Your task to perform on an android device: add a label to a message in the gmail app Image 0: 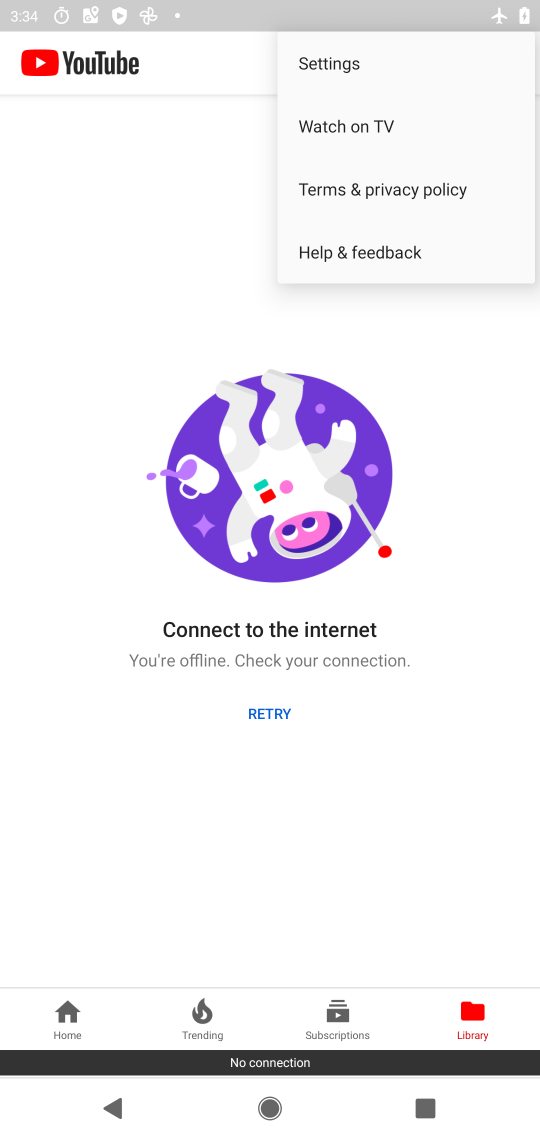
Step 0: press home button
Your task to perform on an android device: add a label to a message in the gmail app Image 1: 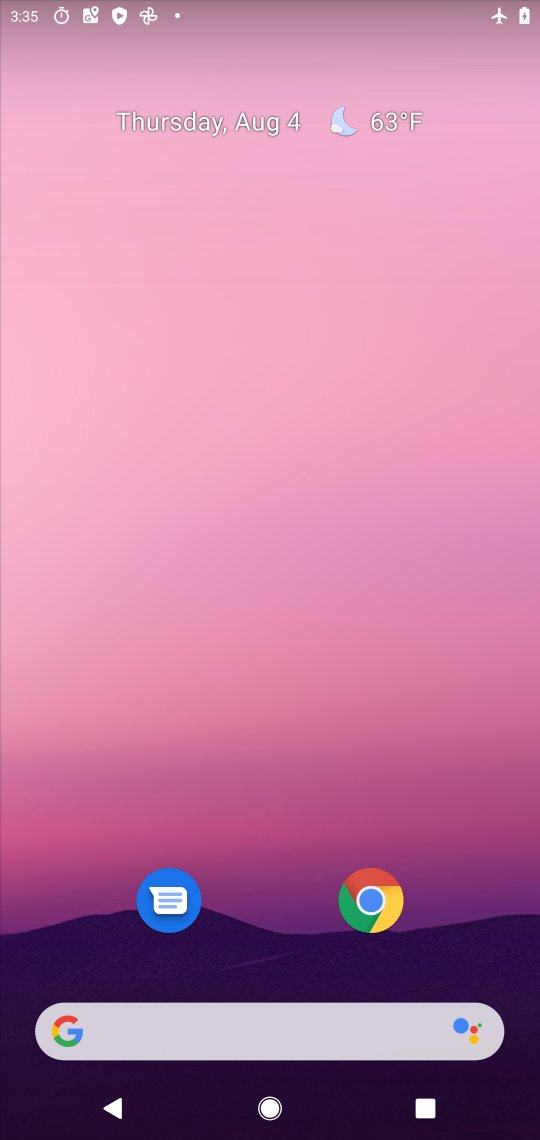
Step 1: drag from (512, 956) to (289, 95)
Your task to perform on an android device: add a label to a message in the gmail app Image 2: 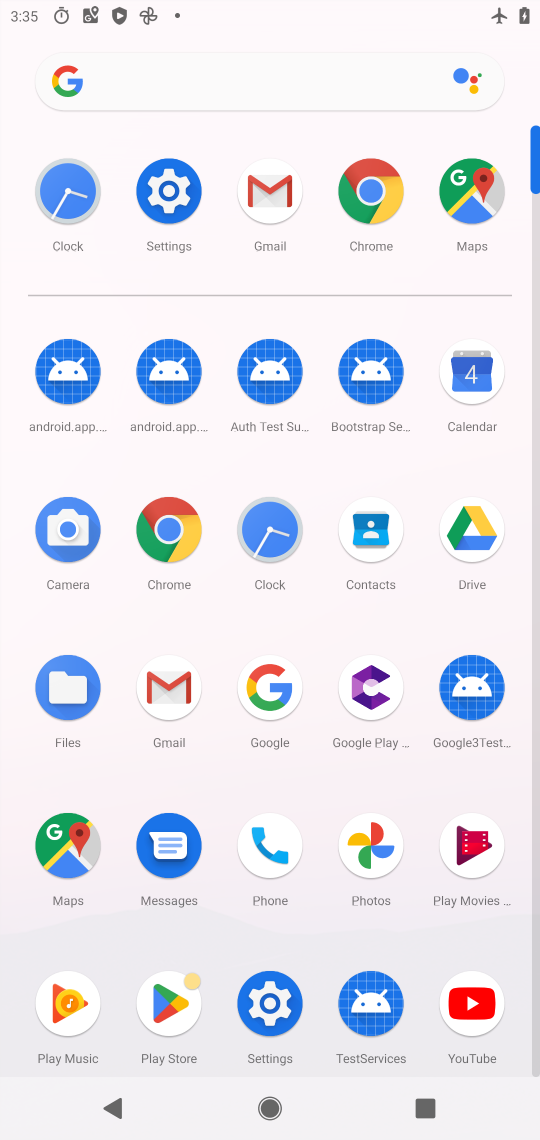
Step 2: click (281, 198)
Your task to perform on an android device: add a label to a message in the gmail app Image 3: 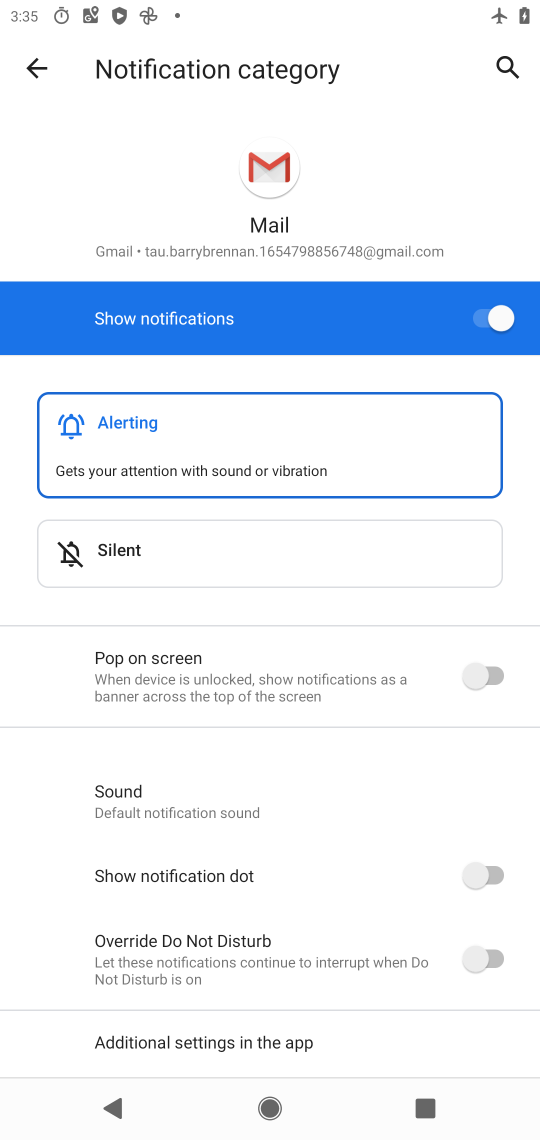
Step 3: click (31, 66)
Your task to perform on an android device: add a label to a message in the gmail app Image 4: 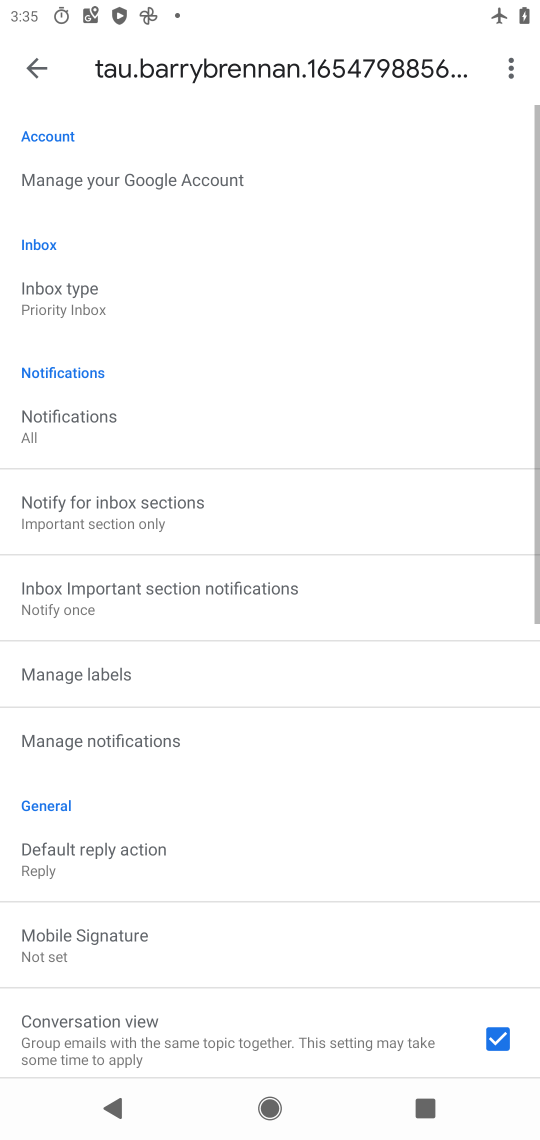
Step 4: click (31, 66)
Your task to perform on an android device: add a label to a message in the gmail app Image 5: 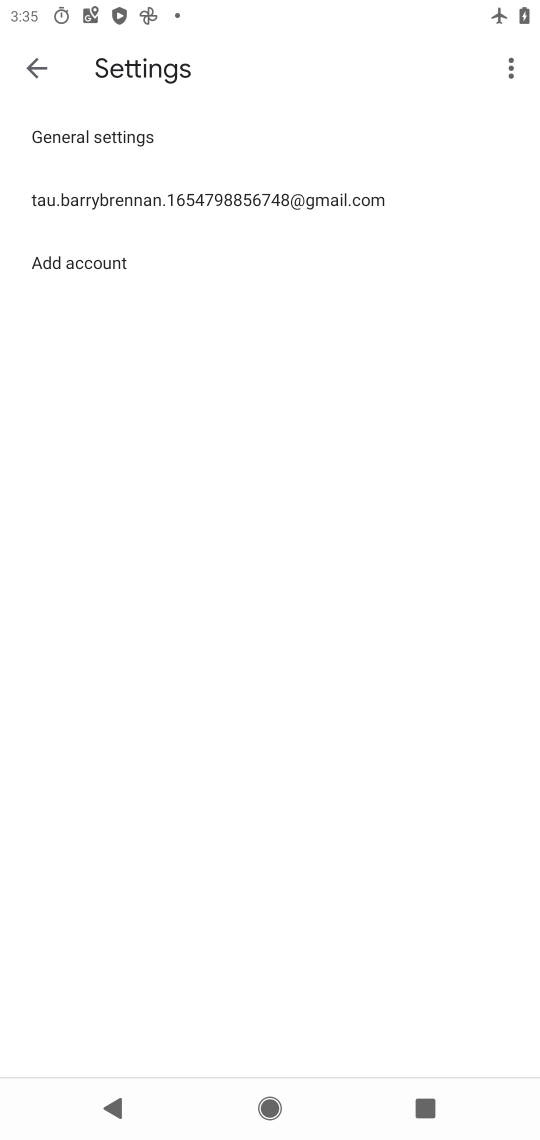
Step 5: click (31, 66)
Your task to perform on an android device: add a label to a message in the gmail app Image 6: 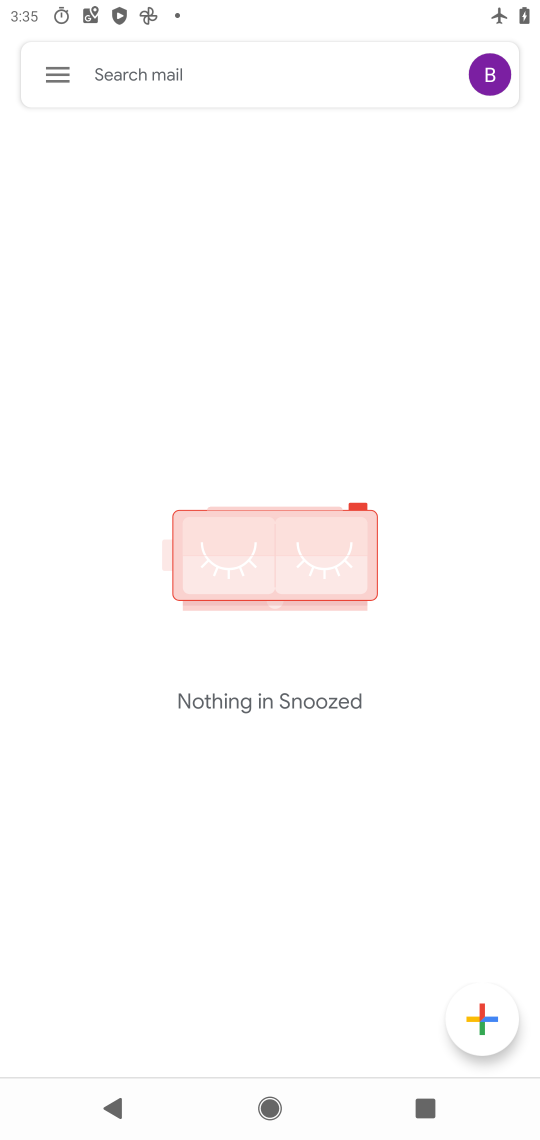
Step 6: click (53, 68)
Your task to perform on an android device: add a label to a message in the gmail app Image 7: 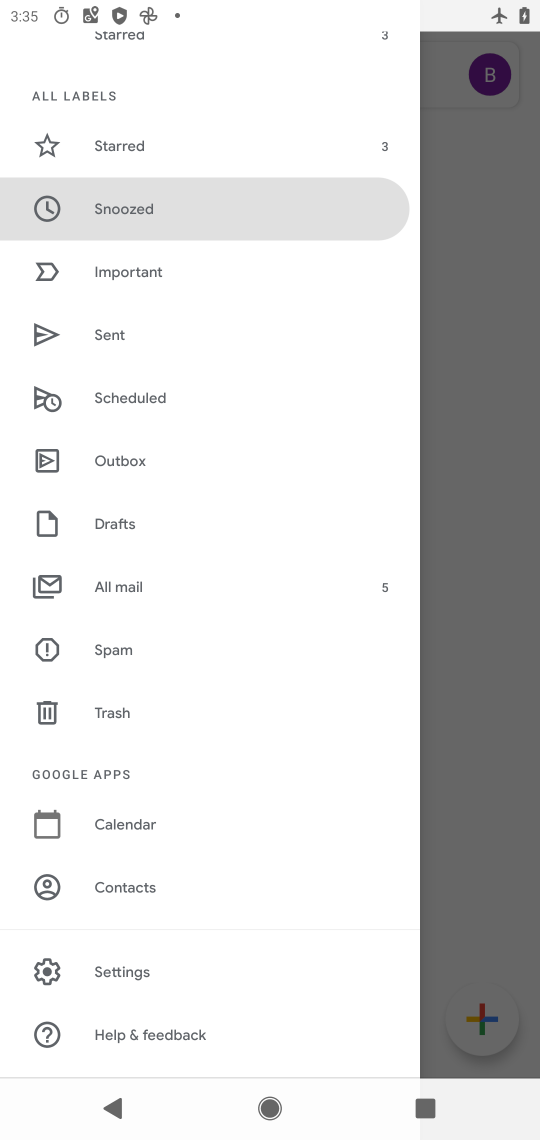
Step 7: click (133, 580)
Your task to perform on an android device: add a label to a message in the gmail app Image 8: 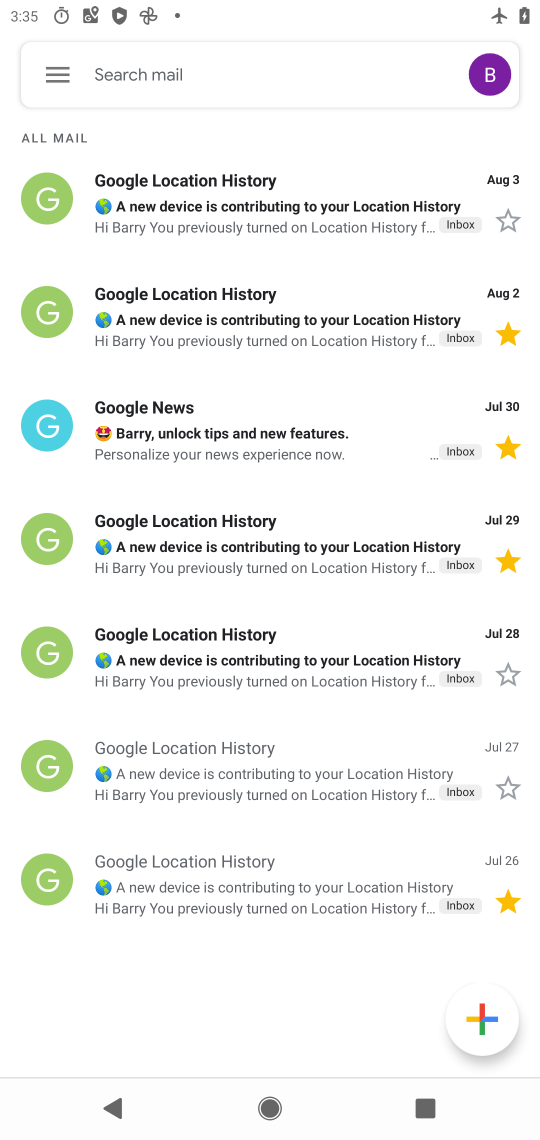
Step 8: click (323, 763)
Your task to perform on an android device: add a label to a message in the gmail app Image 9: 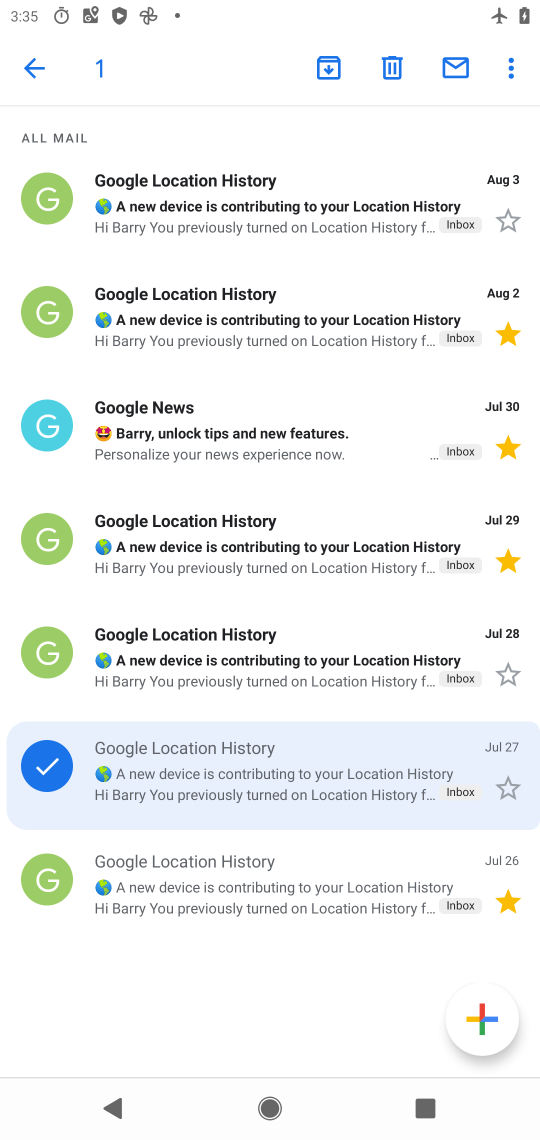
Step 9: click (508, 71)
Your task to perform on an android device: add a label to a message in the gmail app Image 10: 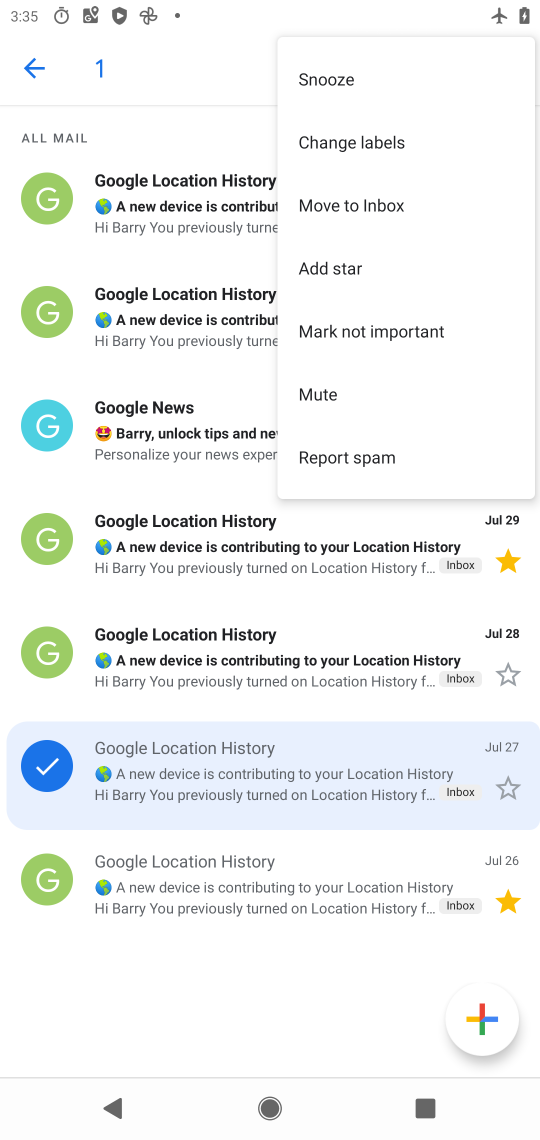
Step 10: click (391, 145)
Your task to perform on an android device: add a label to a message in the gmail app Image 11: 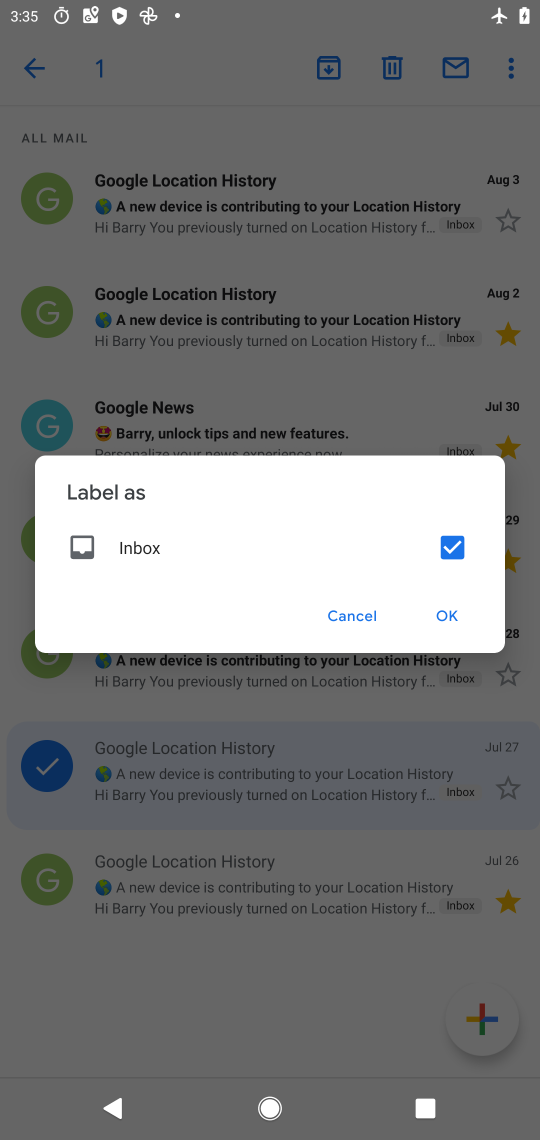
Step 11: click (450, 626)
Your task to perform on an android device: add a label to a message in the gmail app Image 12: 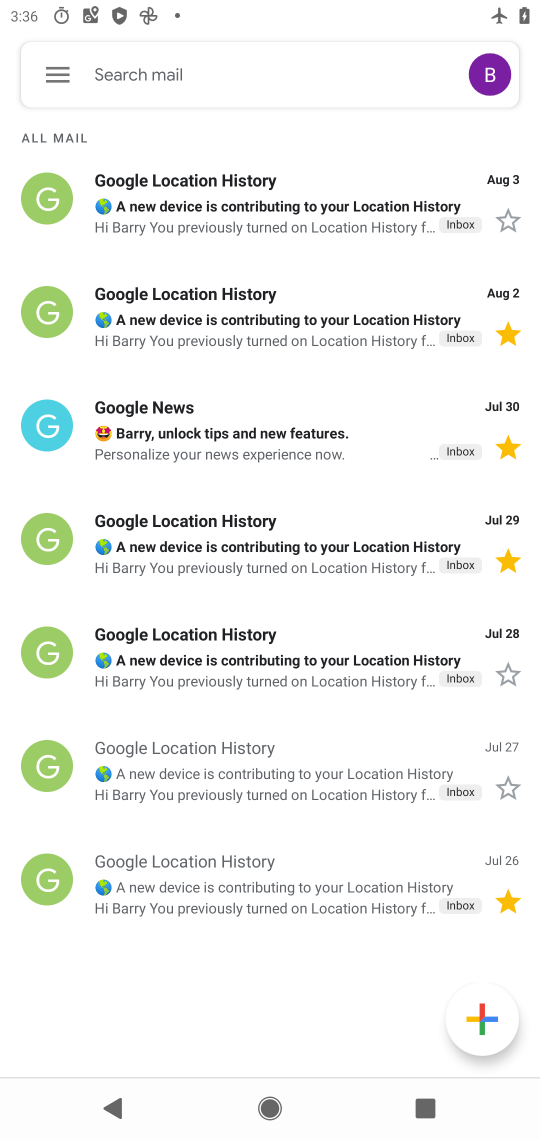
Step 12: task complete